Your task to perform on an android device: change the clock display to show seconds Image 0: 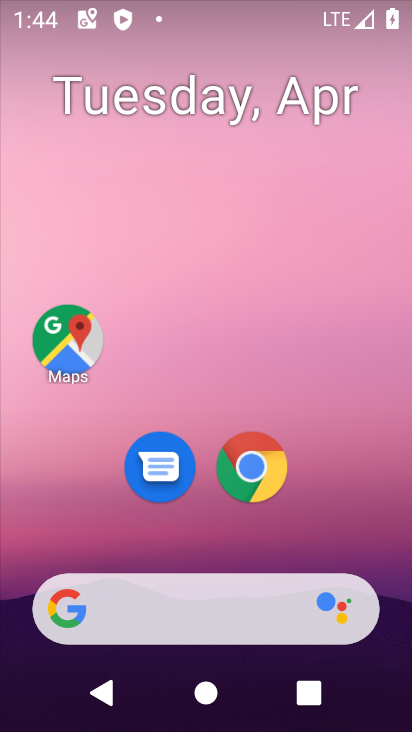
Step 0: drag from (379, 536) to (371, 188)
Your task to perform on an android device: change the clock display to show seconds Image 1: 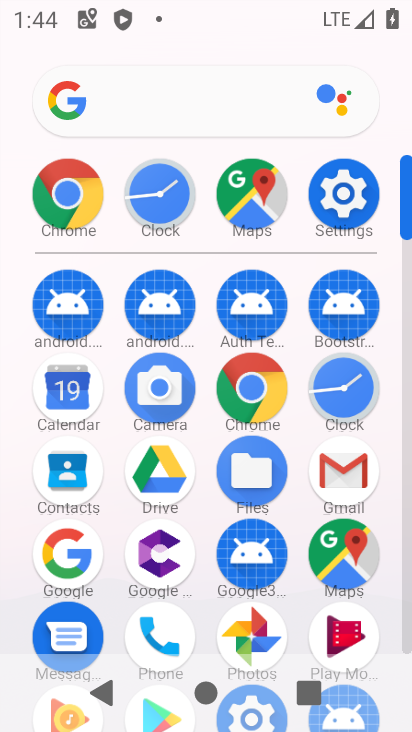
Step 1: click (351, 384)
Your task to perform on an android device: change the clock display to show seconds Image 2: 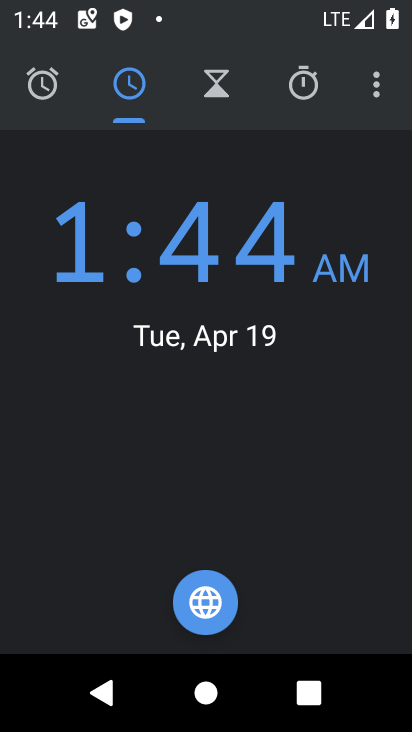
Step 2: click (378, 81)
Your task to perform on an android device: change the clock display to show seconds Image 3: 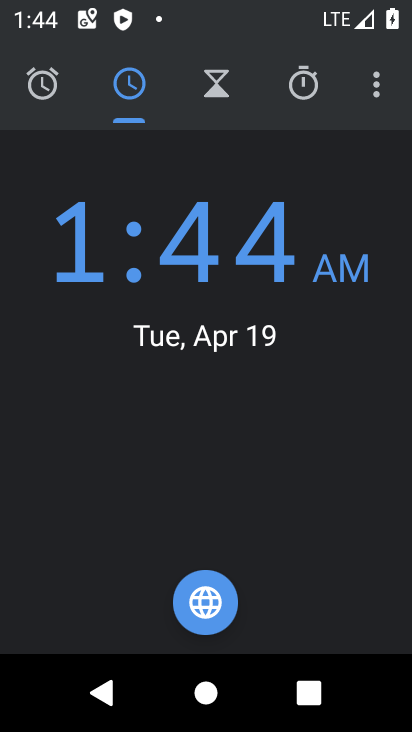
Step 3: click (378, 91)
Your task to perform on an android device: change the clock display to show seconds Image 4: 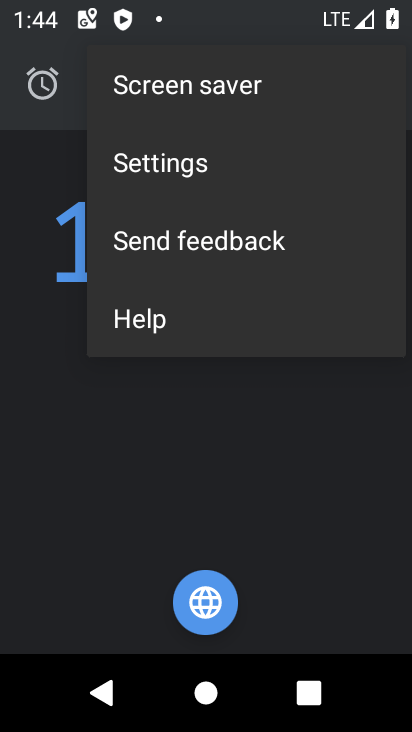
Step 4: click (191, 166)
Your task to perform on an android device: change the clock display to show seconds Image 5: 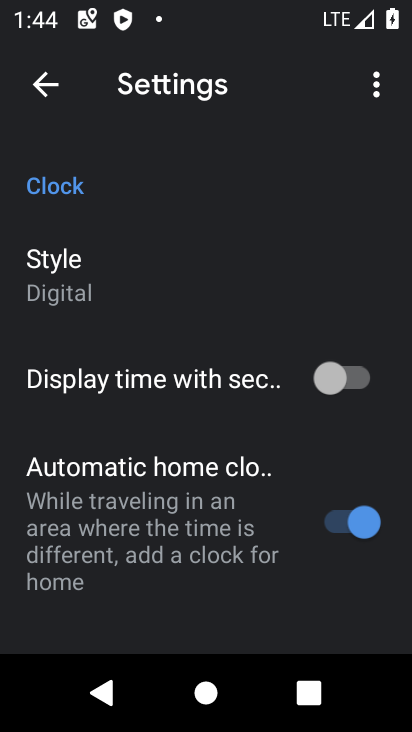
Step 5: drag from (287, 609) to (291, 435)
Your task to perform on an android device: change the clock display to show seconds Image 6: 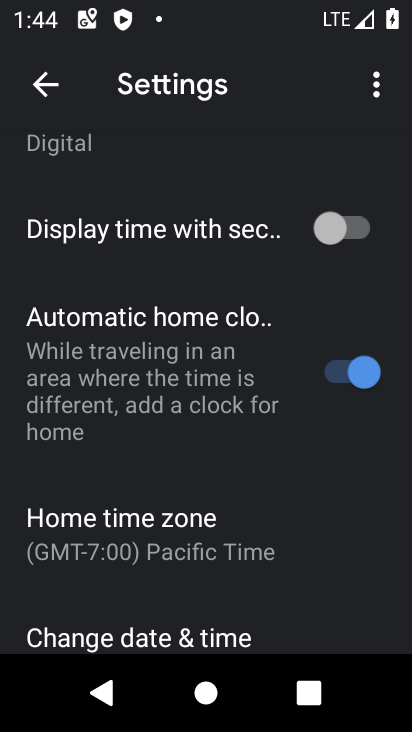
Step 6: drag from (305, 564) to (303, 393)
Your task to perform on an android device: change the clock display to show seconds Image 7: 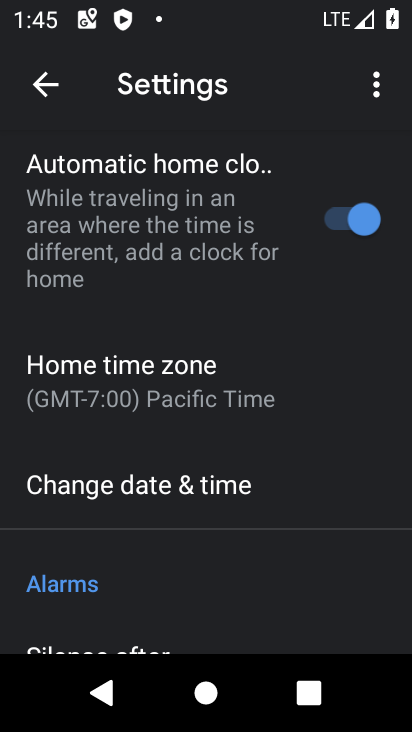
Step 7: drag from (312, 551) to (315, 387)
Your task to perform on an android device: change the clock display to show seconds Image 8: 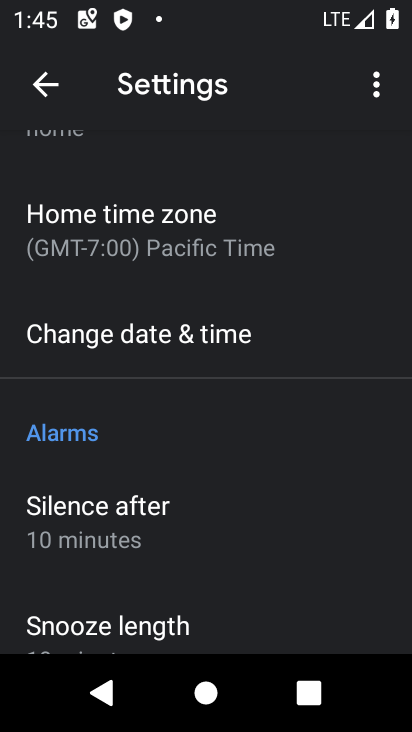
Step 8: drag from (306, 563) to (313, 373)
Your task to perform on an android device: change the clock display to show seconds Image 9: 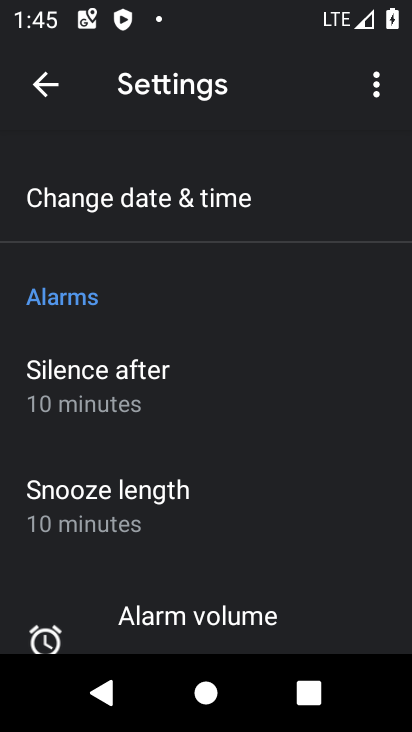
Step 9: drag from (352, 532) to (344, 359)
Your task to perform on an android device: change the clock display to show seconds Image 10: 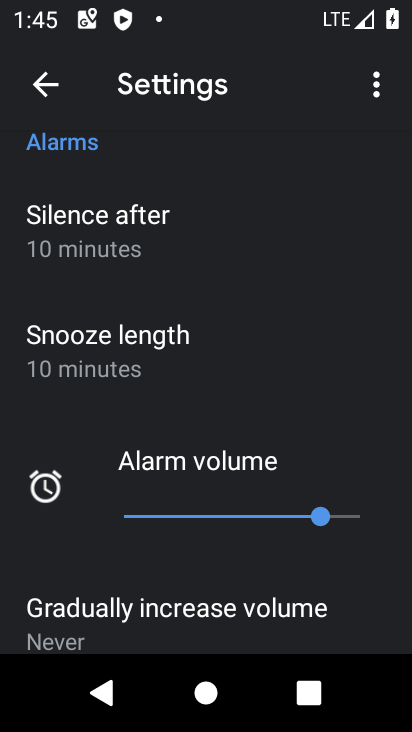
Step 10: drag from (341, 258) to (345, 474)
Your task to perform on an android device: change the clock display to show seconds Image 11: 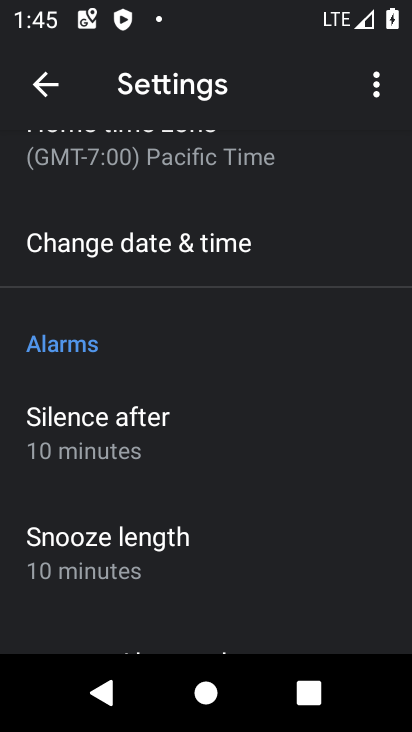
Step 11: drag from (354, 271) to (352, 447)
Your task to perform on an android device: change the clock display to show seconds Image 12: 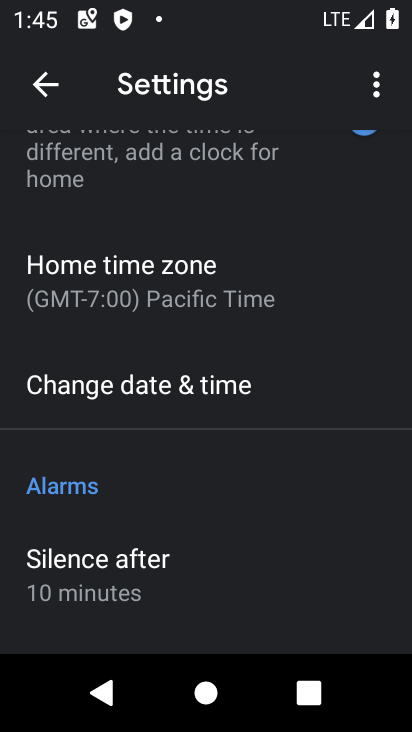
Step 12: drag from (336, 239) to (336, 435)
Your task to perform on an android device: change the clock display to show seconds Image 13: 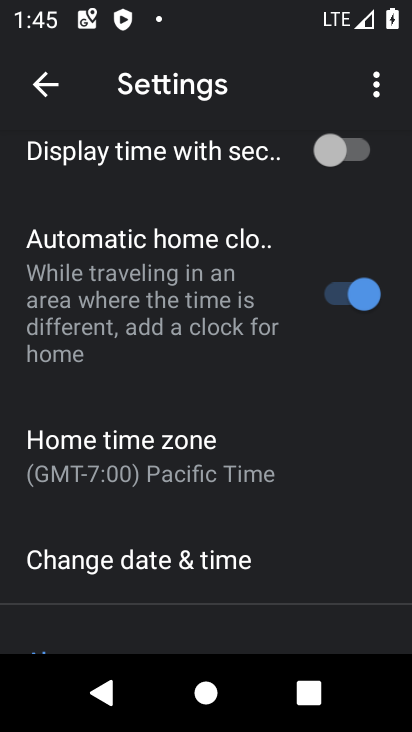
Step 13: drag from (299, 224) to (281, 434)
Your task to perform on an android device: change the clock display to show seconds Image 14: 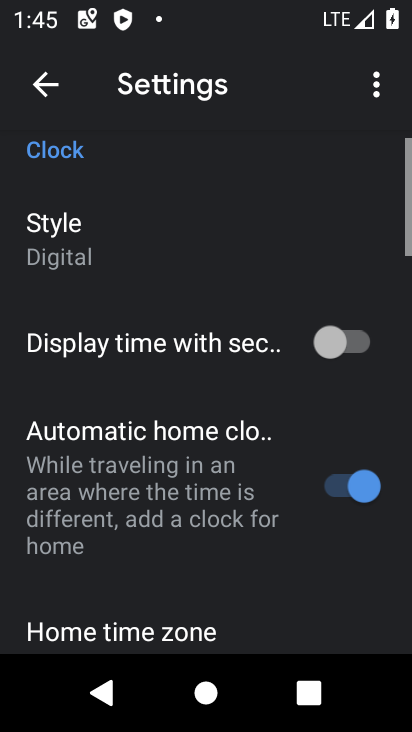
Step 14: drag from (267, 198) to (267, 428)
Your task to perform on an android device: change the clock display to show seconds Image 15: 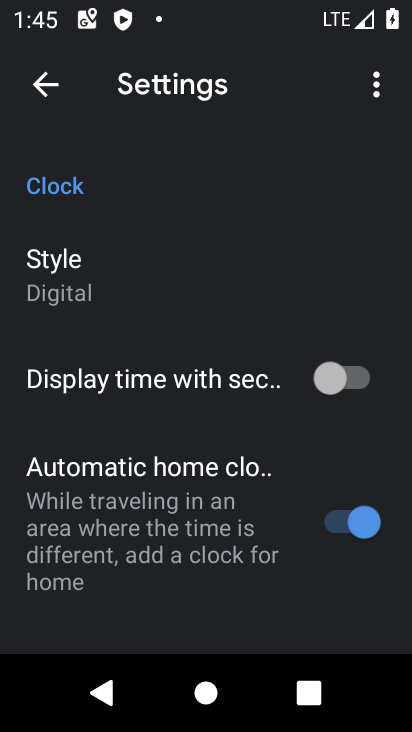
Step 15: click (344, 385)
Your task to perform on an android device: change the clock display to show seconds Image 16: 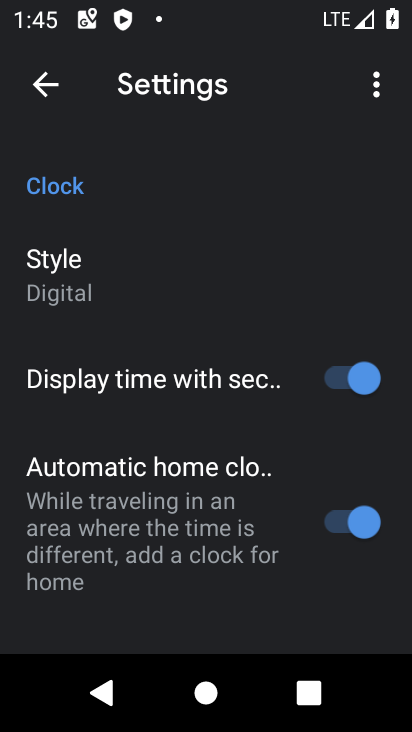
Step 16: task complete